Your task to perform on an android device: Go to Google Image 0: 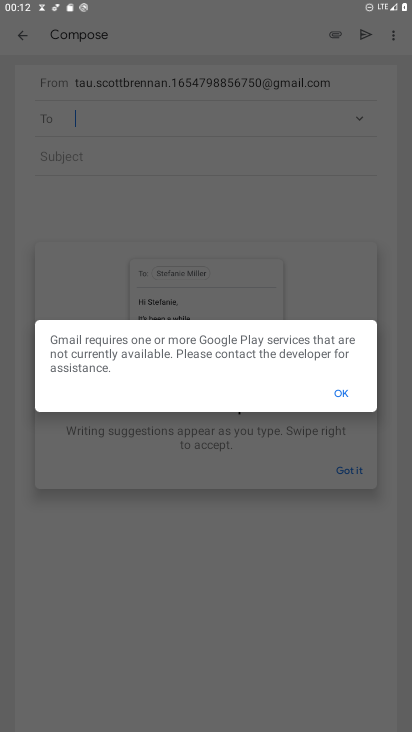
Step 0: press home button
Your task to perform on an android device: Go to Google Image 1: 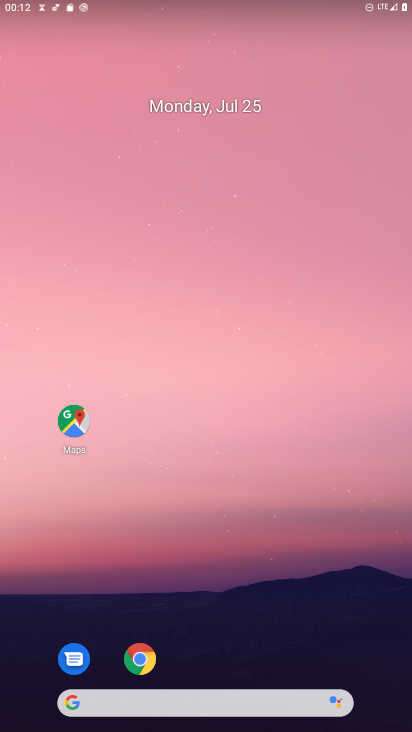
Step 1: drag from (296, 538) to (303, 43)
Your task to perform on an android device: Go to Google Image 2: 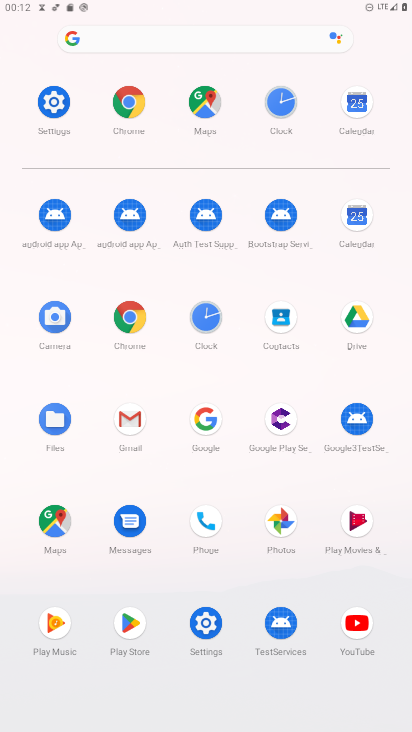
Step 2: click (61, 114)
Your task to perform on an android device: Go to Google Image 3: 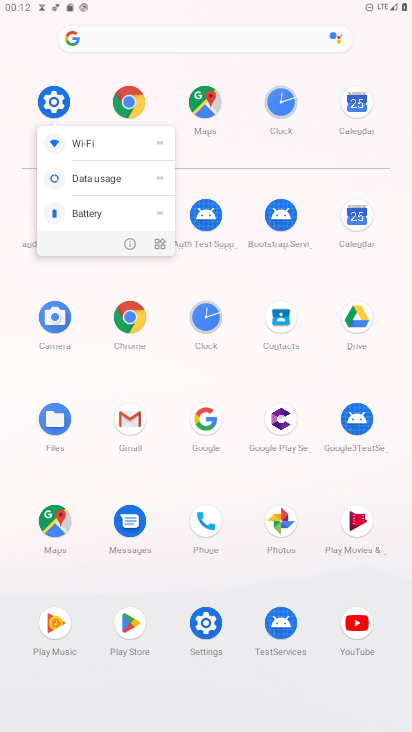
Step 3: click (59, 96)
Your task to perform on an android device: Go to Google Image 4: 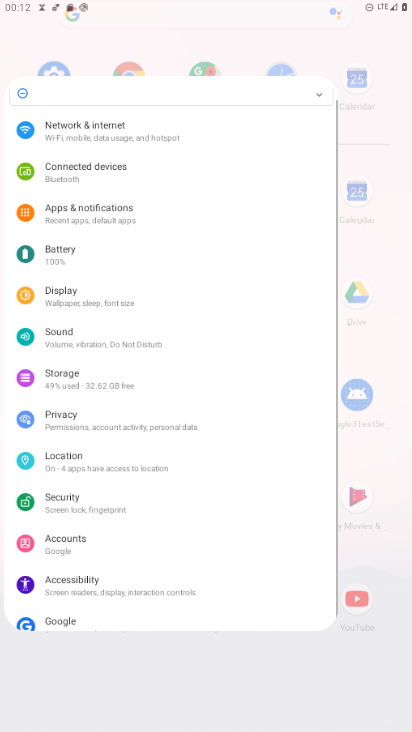
Step 4: click (59, 96)
Your task to perform on an android device: Go to Google Image 5: 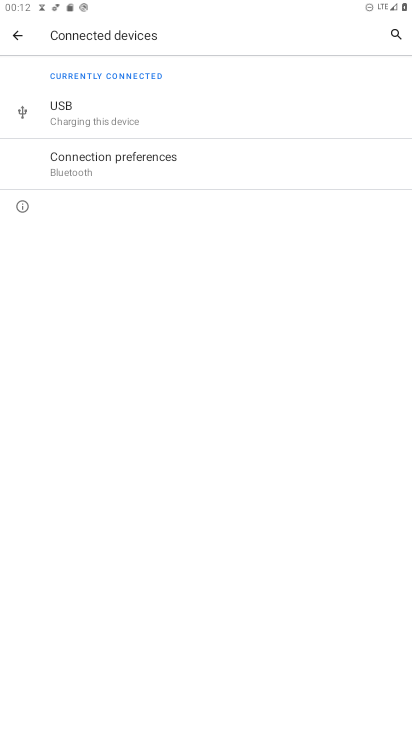
Step 5: click (28, 52)
Your task to perform on an android device: Go to Google Image 6: 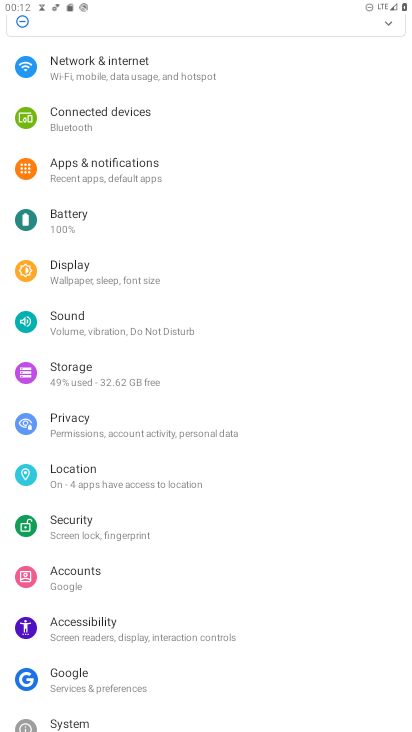
Step 6: click (75, 353)
Your task to perform on an android device: Go to Google Image 7: 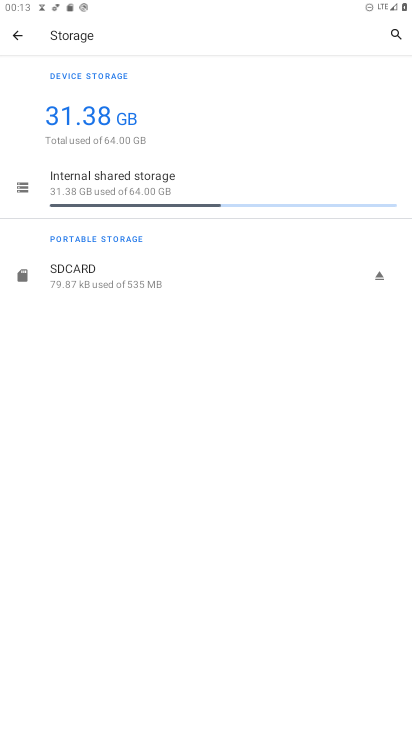
Step 7: press home button
Your task to perform on an android device: Go to Google Image 8: 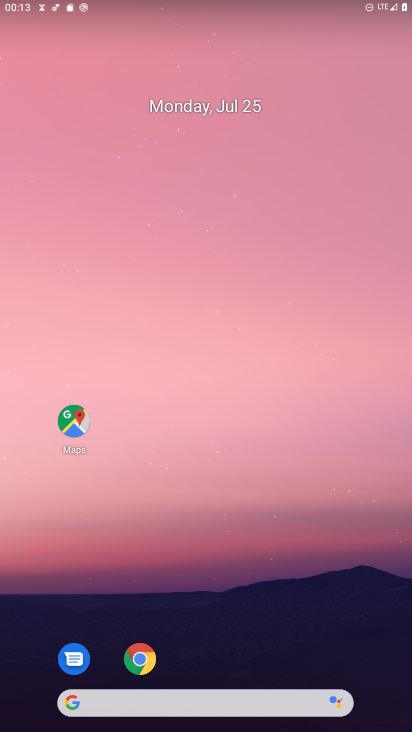
Step 8: drag from (163, 592) to (154, 238)
Your task to perform on an android device: Go to Google Image 9: 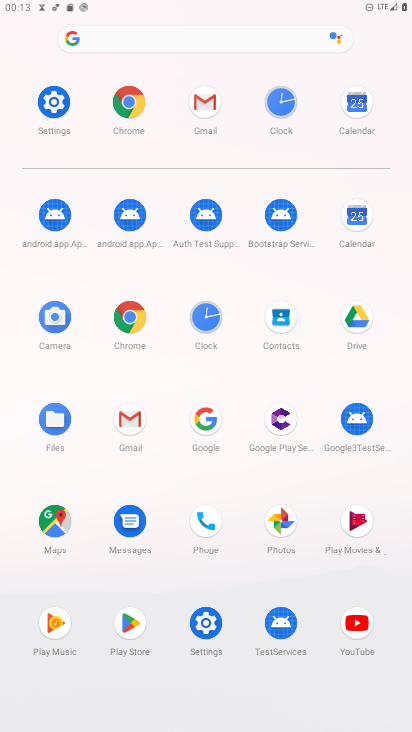
Step 9: click (215, 421)
Your task to perform on an android device: Go to Google Image 10: 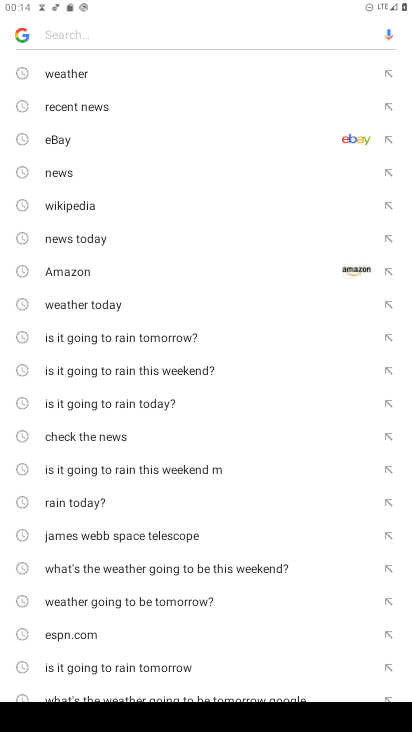
Step 10: task complete